Your task to perform on an android device: turn on sleep mode Image 0: 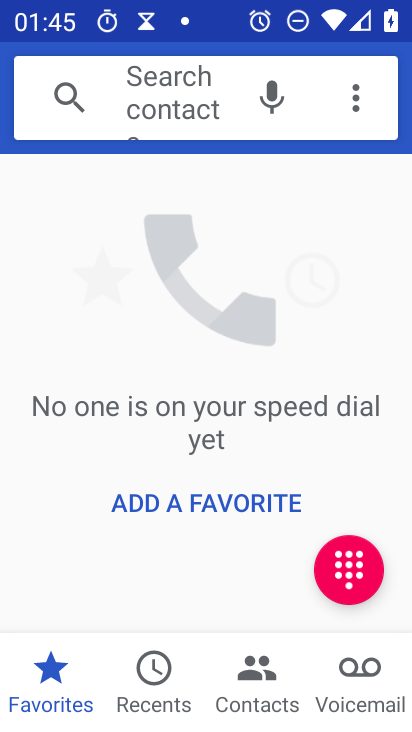
Step 0: press home button
Your task to perform on an android device: turn on sleep mode Image 1: 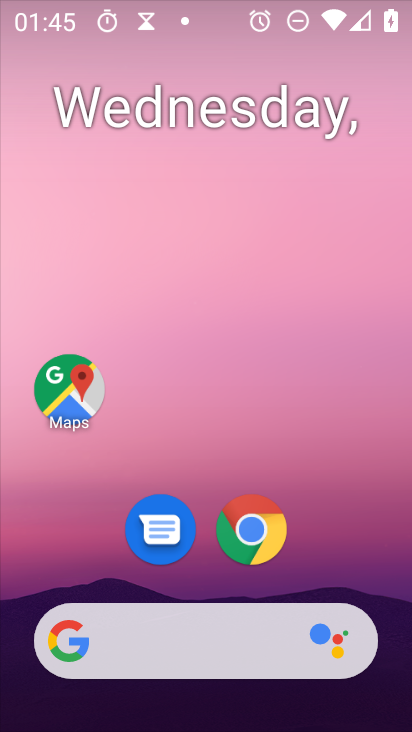
Step 1: drag from (287, 656) to (352, 23)
Your task to perform on an android device: turn on sleep mode Image 2: 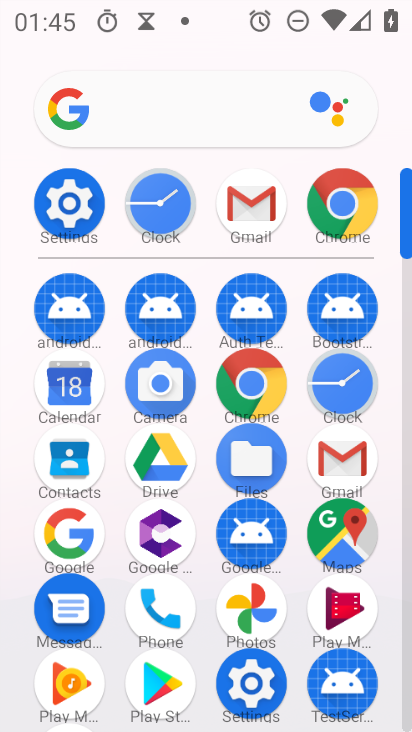
Step 2: click (88, 207)
Your task to perform on an android device: turn on sleep mode Image 3: 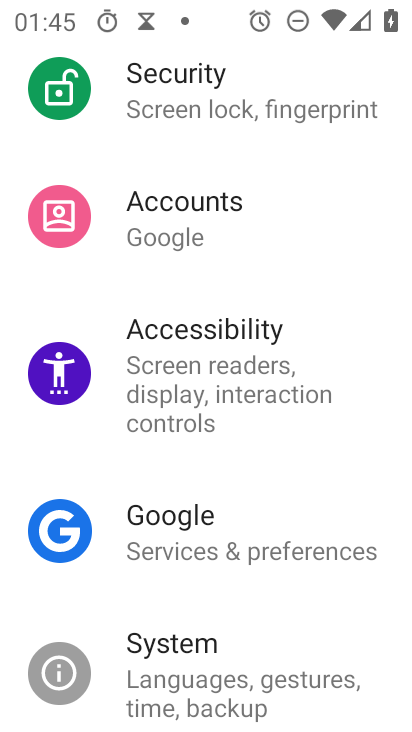
Step 3: drag from (273, 591) to (237, 728)
Your task to perform on an android device: turn on sleep mode Image 4: 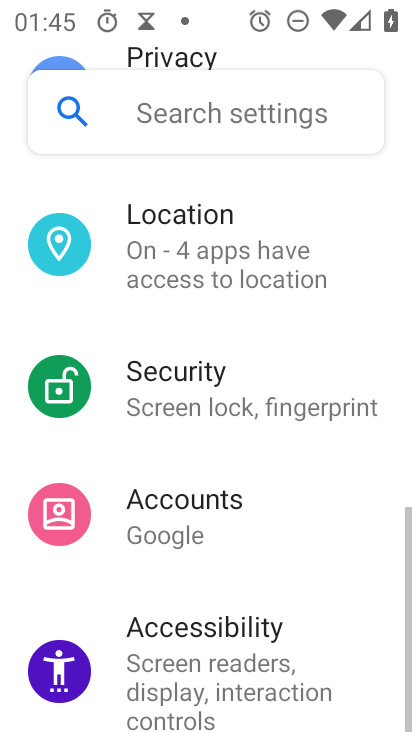
Step 4: drag from (239, 246) to (302, 731)
Your task to perform on an android device: turn on sleep mode Image 5: 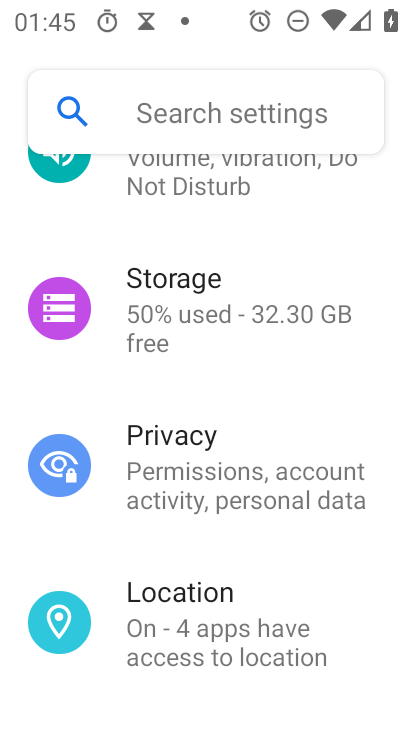
Step 5: drag from (231, 282) to (214, 688)
Your task to perform on an android device: turn on sleep mode Image 6: 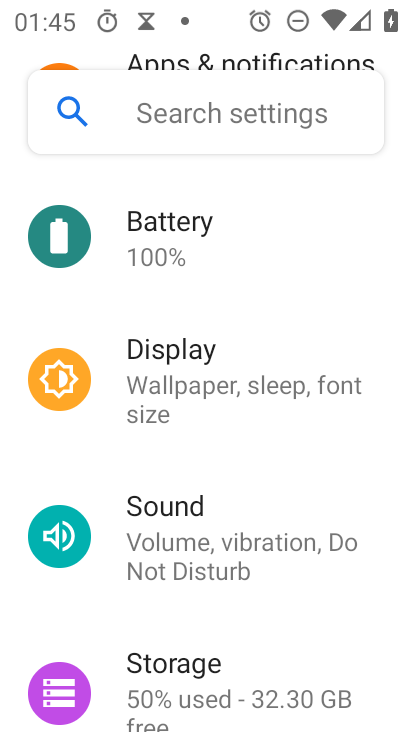
Step 6: click (210, 345)
Your task to perform on an android device: turn on sleep mode Image 7: 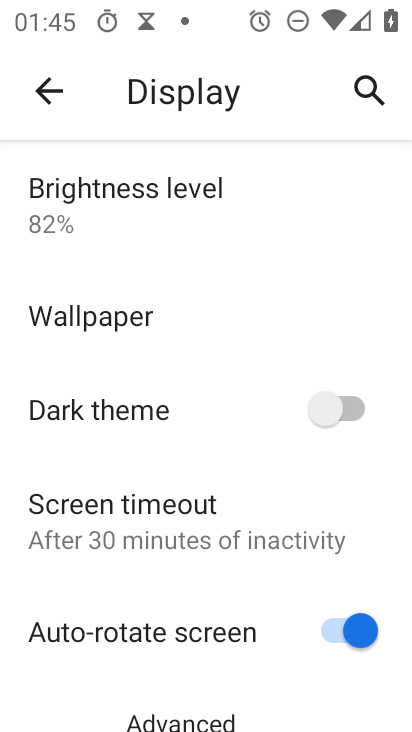
Step 7: task complete